Your task to perform on an android device: Go to Wikipedia Image 0: 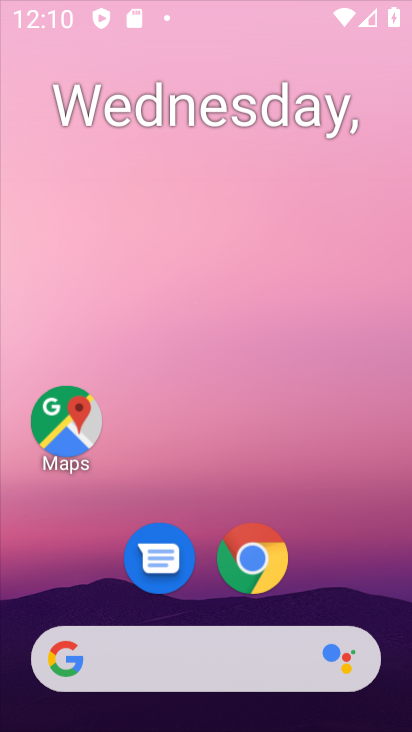
Step 0: click (295, 112)
Your task to perform on an android device: Go to Wikipedia Image 1: 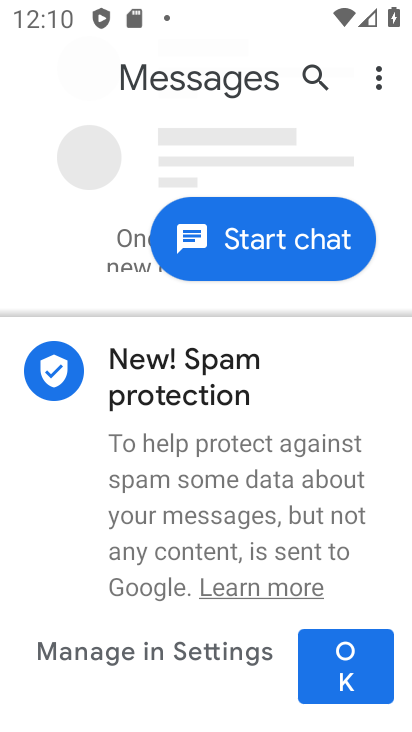
Step 1: press home button
Your task to perform on an android device: Go to Wikipedia Image 2: 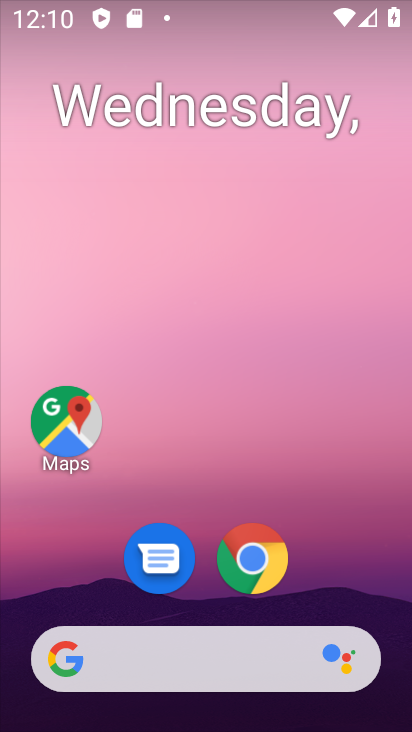
Step 2: click (255, 576)
Your task to perform on an android device: Go to Wikipedia Image 3: 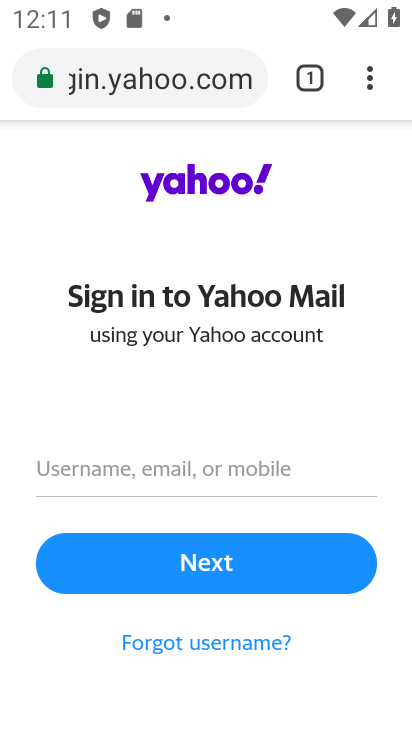
Step 3: click (222, 84)
Your task to perform on an android device: Go to Wikipedia Image 4: 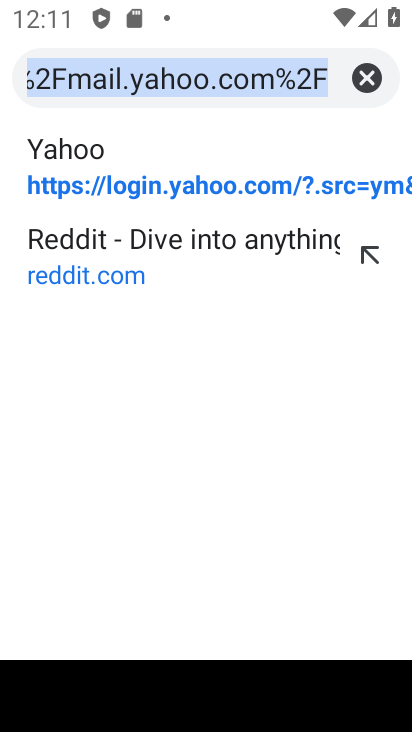
Step 4: type "wikipedia"
Your task to perform on an android device: Go to Wikipedia Image 5: 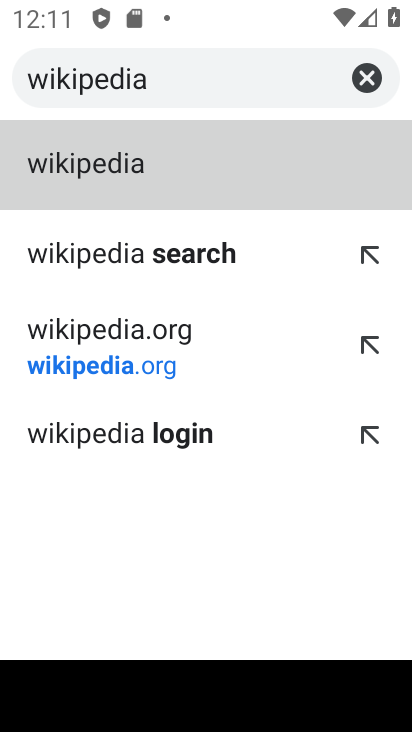
Step 5: click (161, 354)
Your task to perform on an android device: Go to Wikipedia Image 6: 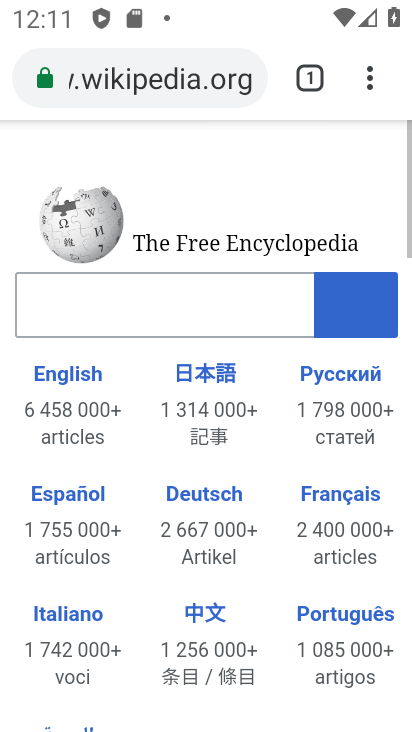
Step 6: task complete